Your task to perform on an android device: What is the news today? Image 0: 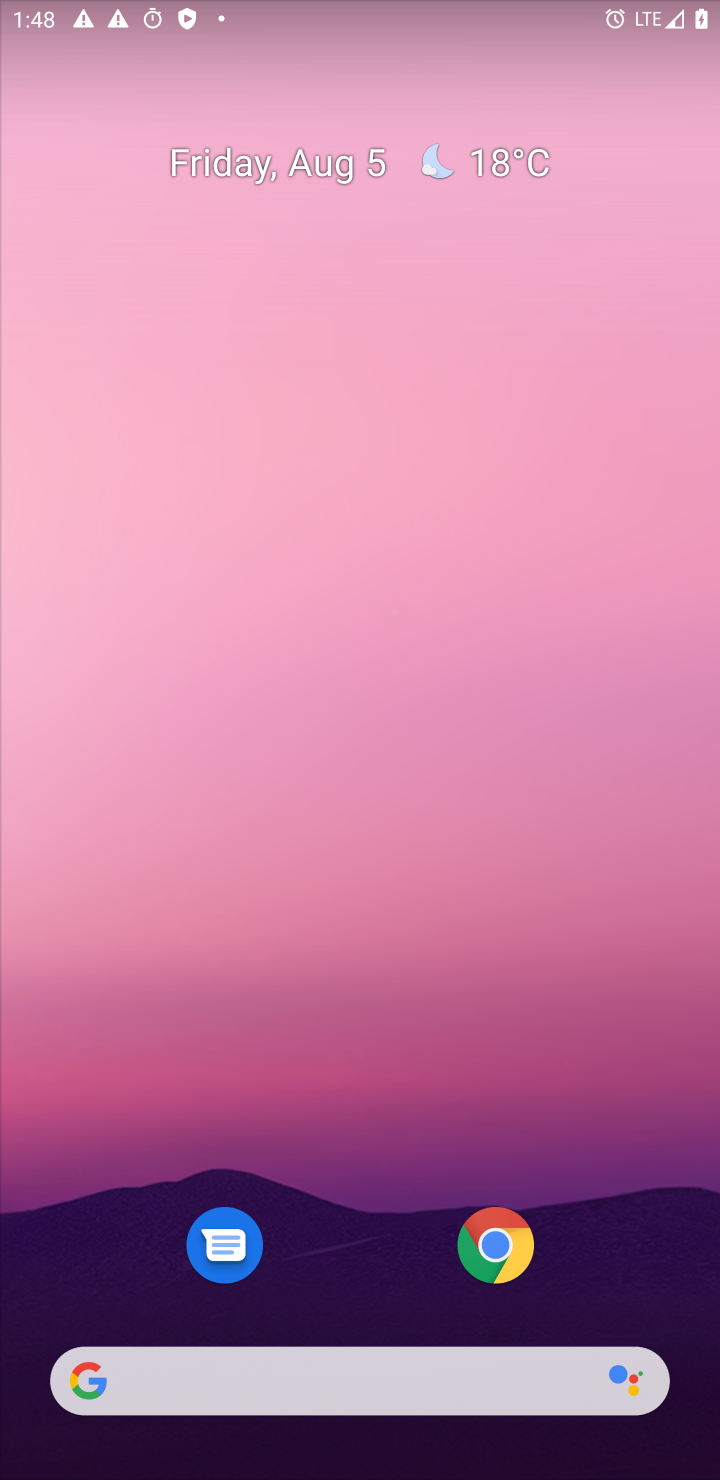
Step 0: click (77, 1386)
Your task to perform on an android device: What is the news today? Image 1: 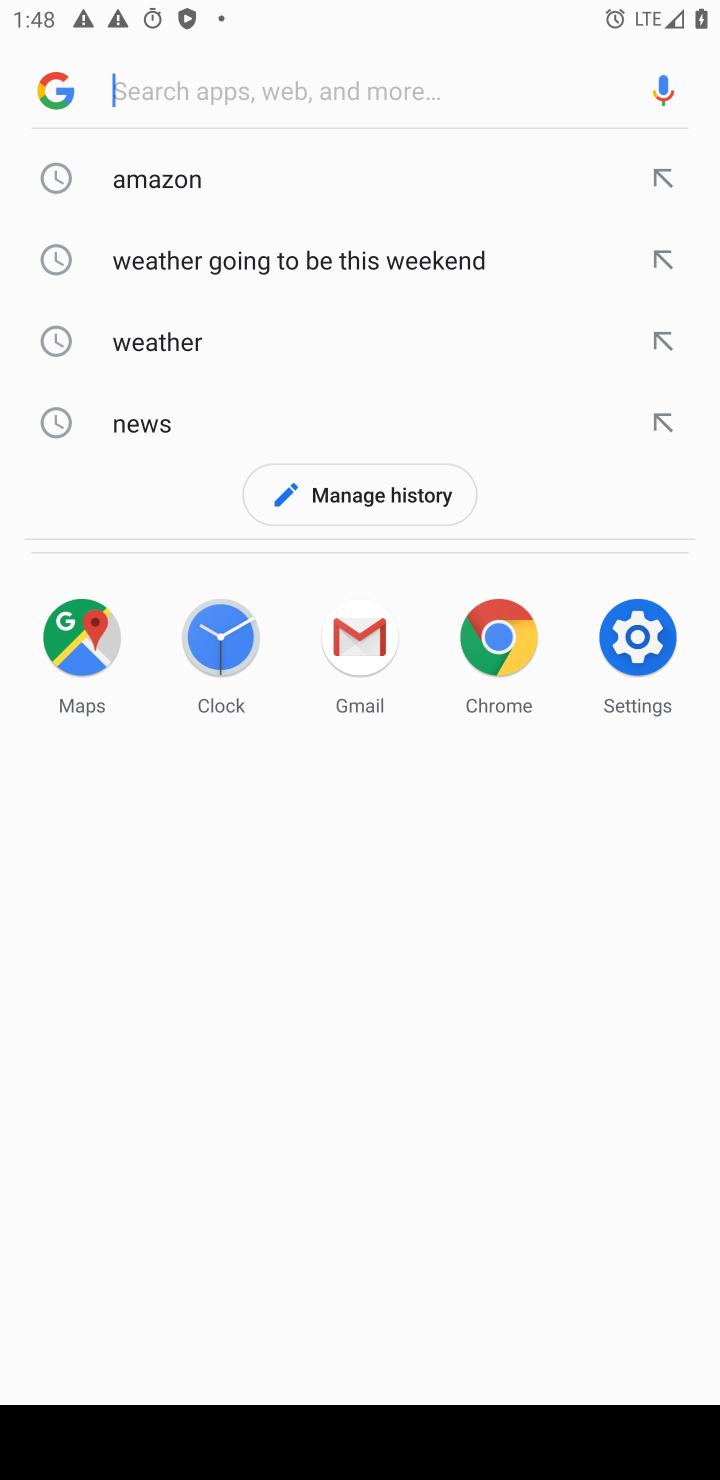
Step 1: type "news today?"
Your task to perform on an android device: What is the news today? Image 2: 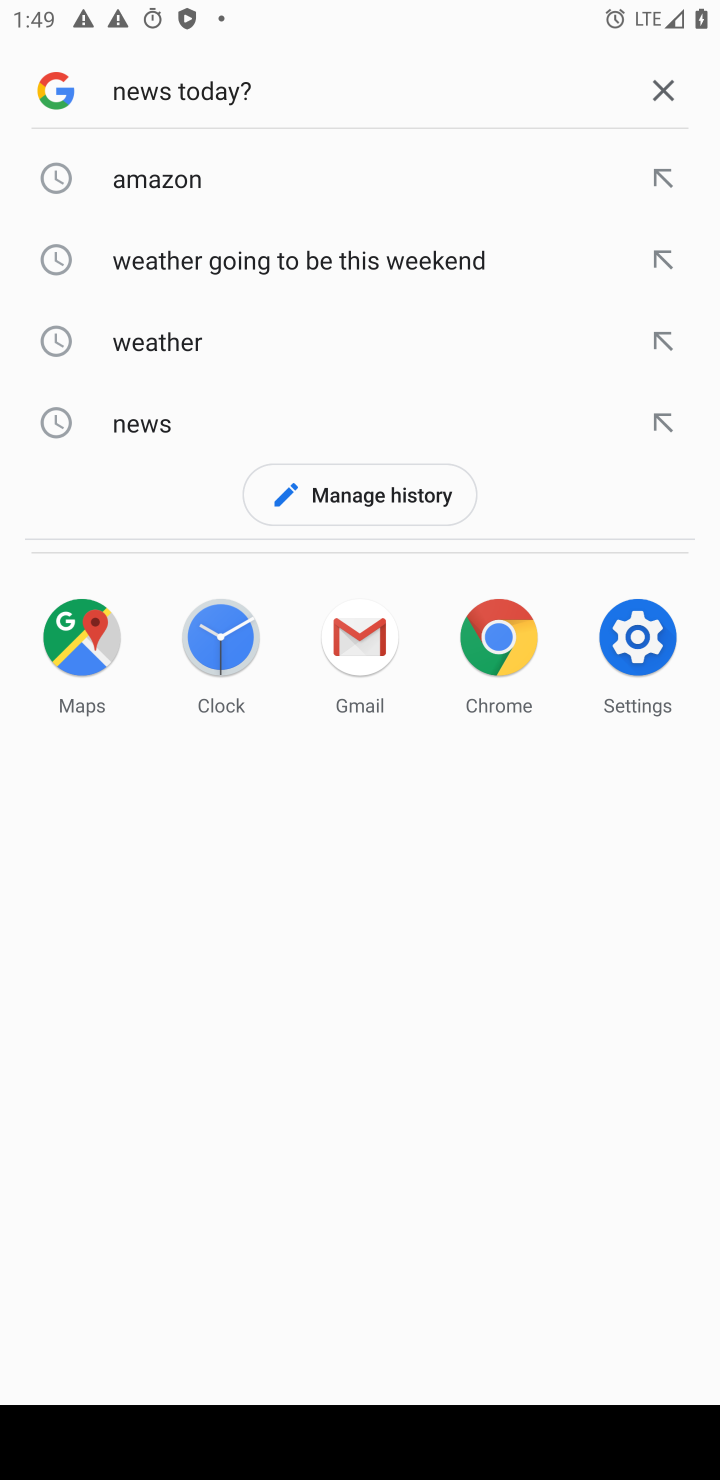
Step 2: press enter
Your task to perform on an android device: What is the news today? Image 3: 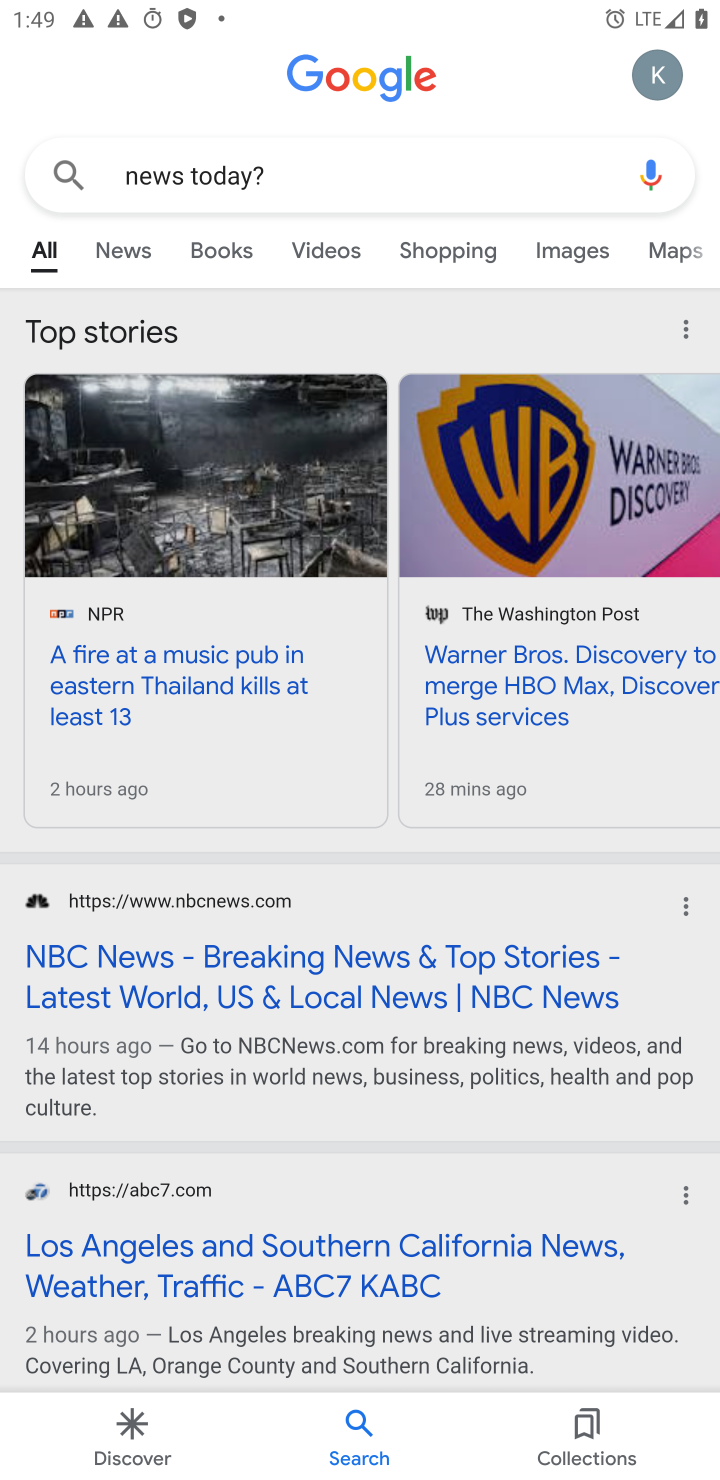
Step 3: task complete